Your task to perform on an android device: Open sound settings Image 0: 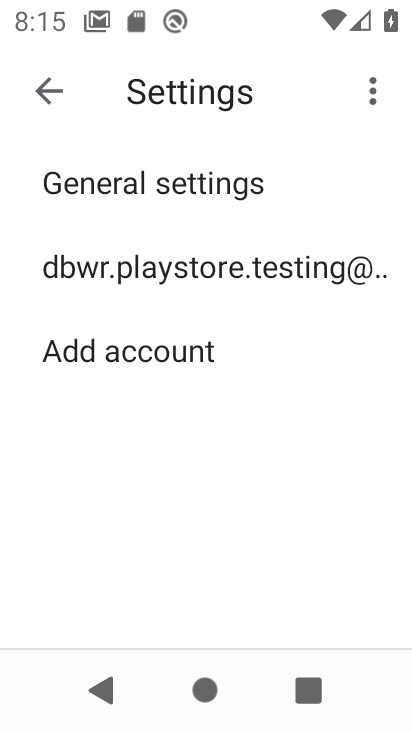
Step 0: press home button
Your task to perform on an android device: Open sound settings Image 1: 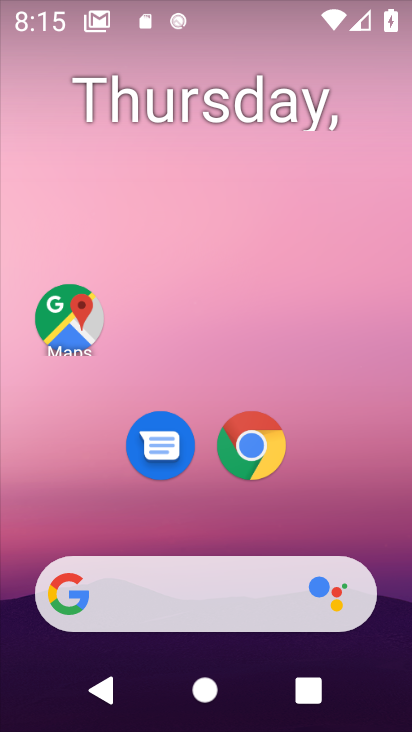
Step 1: drag from (212, 521) to (186, 49)
Your task to perform on an android device: Open sound settings Image 2: 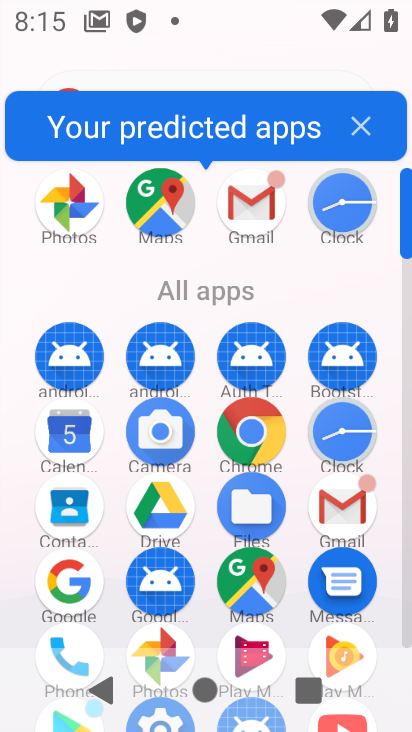
Step 2: drag from (207, 609) to (200, 445)
Your task to perform on an android device: Open sound settings Image 3: 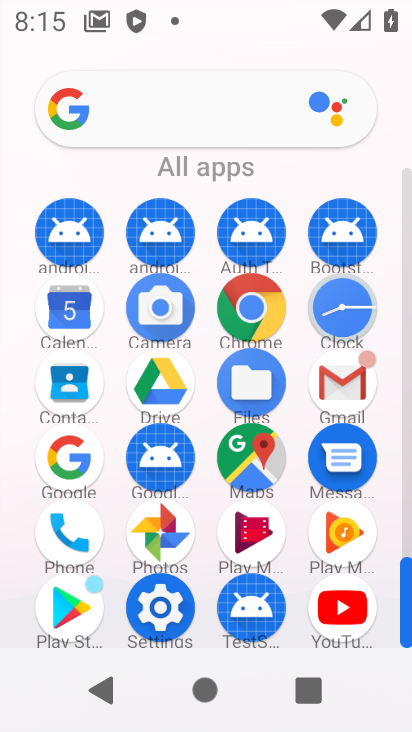
Step 3: click (147, 635)
Your task to perform on an android device: Open sound settings Image 4: 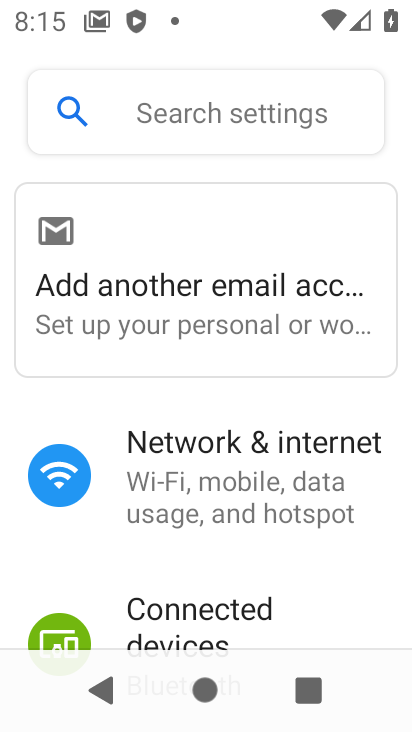
Step 4: drag from (341, 613) to (322, 257)
Your task to perform on an android device: Open sound settings Image 5: 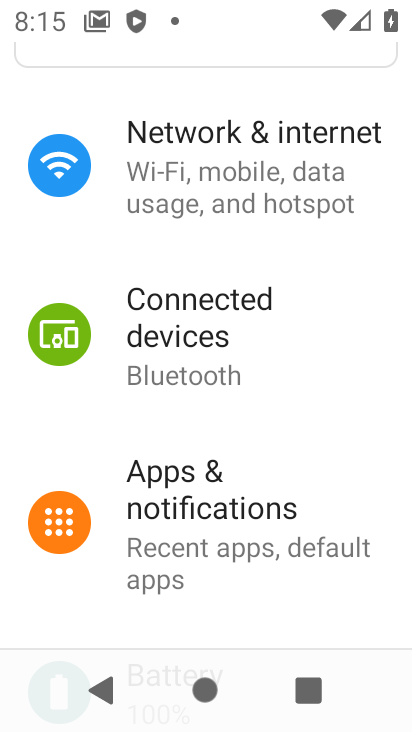
Step 5: drag from (248, 596) to (218, 154)
Your task to perform on an android device: Open sound settings Image 6: 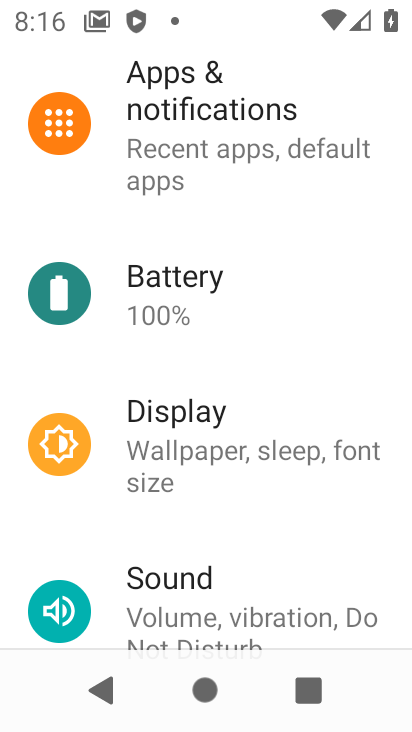
Step 6: click (152, 579)
Your task to perform on an android device: Open sound settings Image 7: 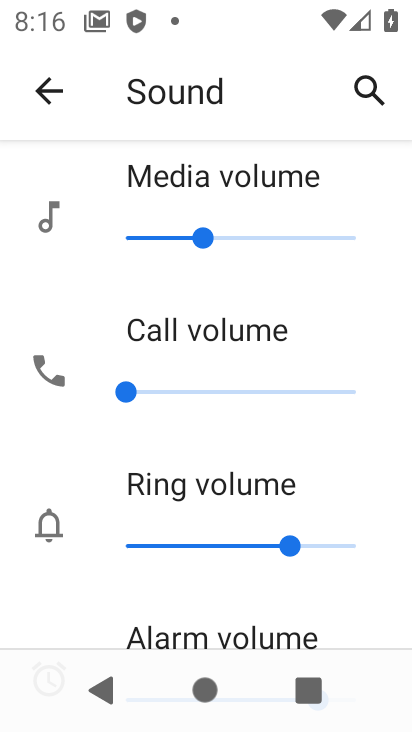
Step 7: task complete